Your task to perform on an android device: set the timer Image 0: 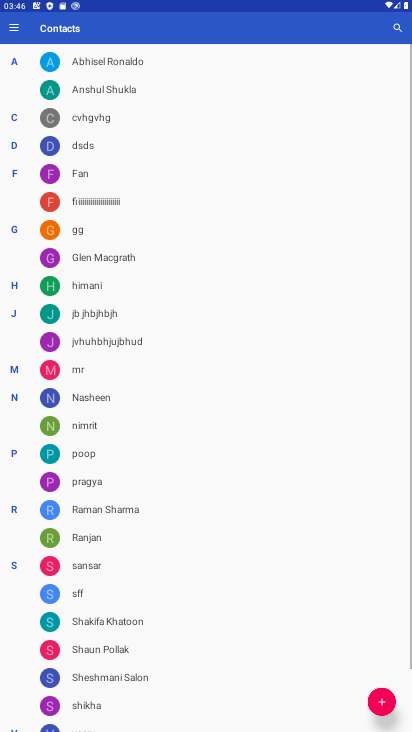
Step 0: drag from (277, 602) to (278, 225)
Your task to perform on an android device: set the timer Image 1: 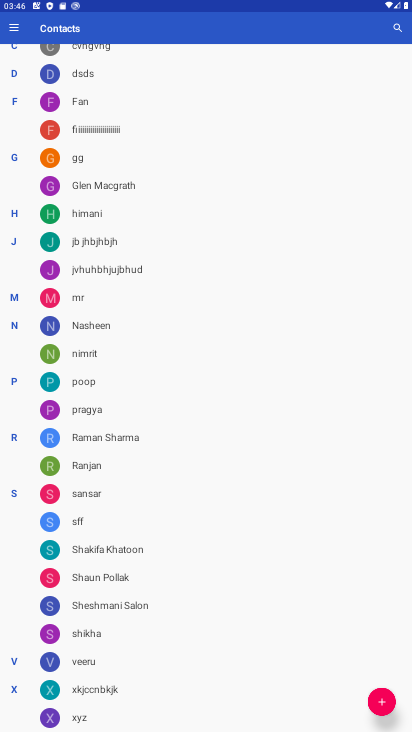
Step 1: press home button
Your task to perform on an android device: set the timer Image 2: 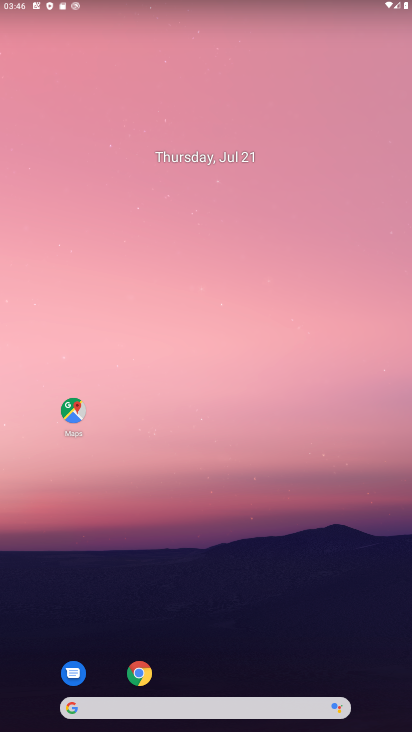
Step 2: drag from (292, 498) to (299, 68)
Your task to perform on an android device: set the timer Image 3: 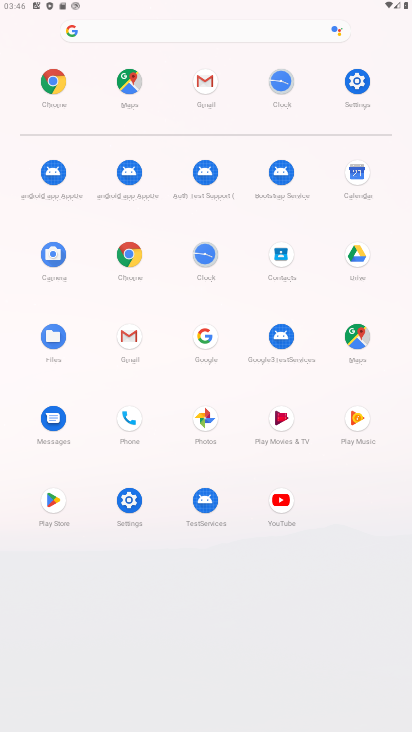
Step 3: click (206, 249)
Your task to perform on an android device: set the timer Image 4: 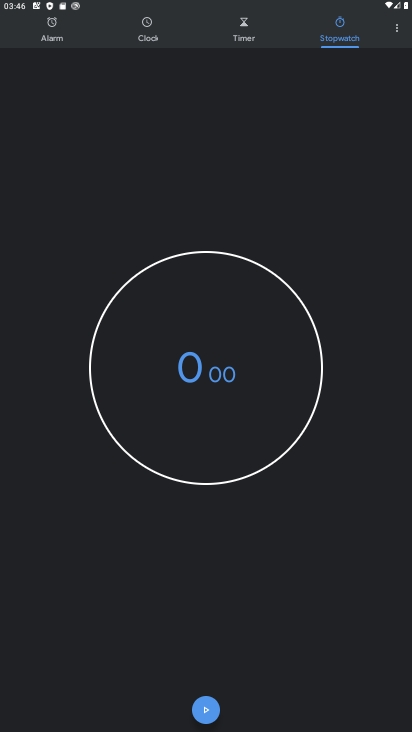
Step 4: click (258, 33)
Your task to perform on an android device: set the timer Image 5: 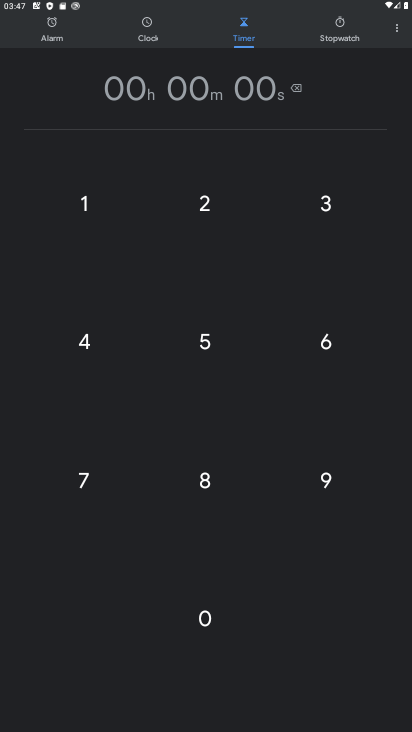
Step 5: click (212, 339)
Your task to perform on an android device: set the timer Image 6: 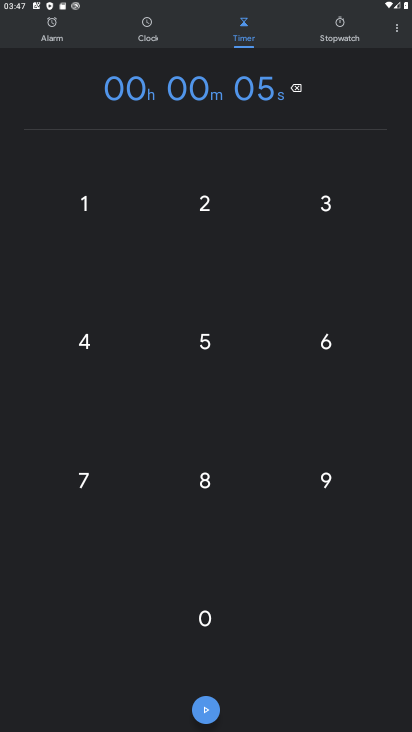
Step 6: task complete